Your task to perform on an android device: Open the web browser Image 0: 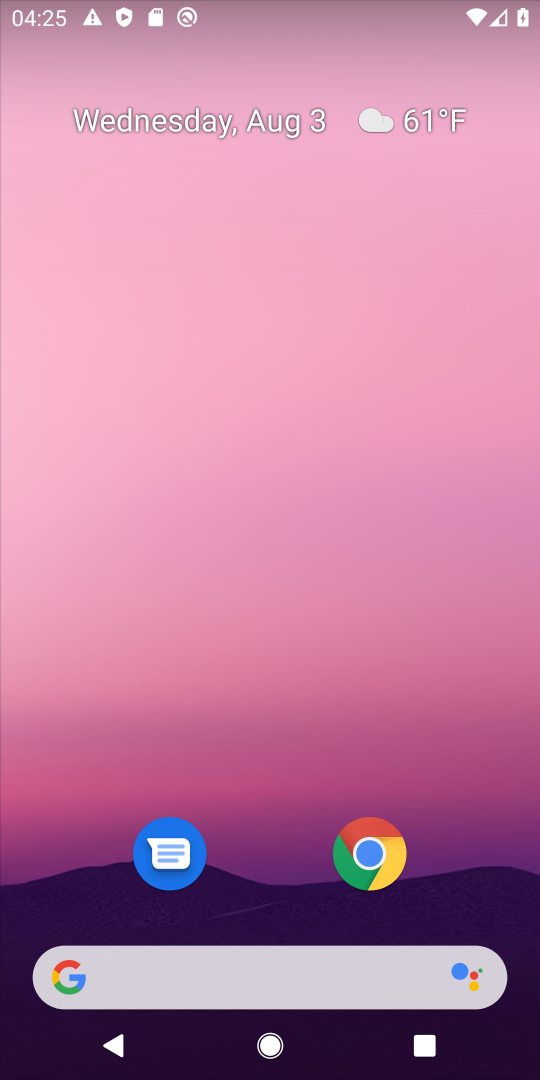
Step 0: click (366, 860)
Your task to perform on an android device: Open the web browser Image 1: 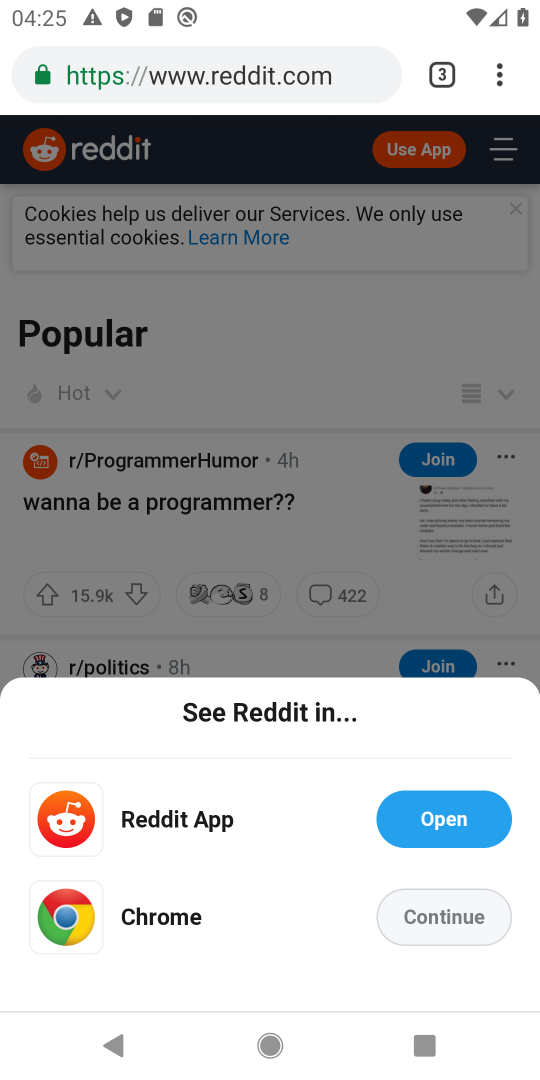
Step 1: task complete